Your task to perform on an android device: toggle javascript in the chrome app Image 0: 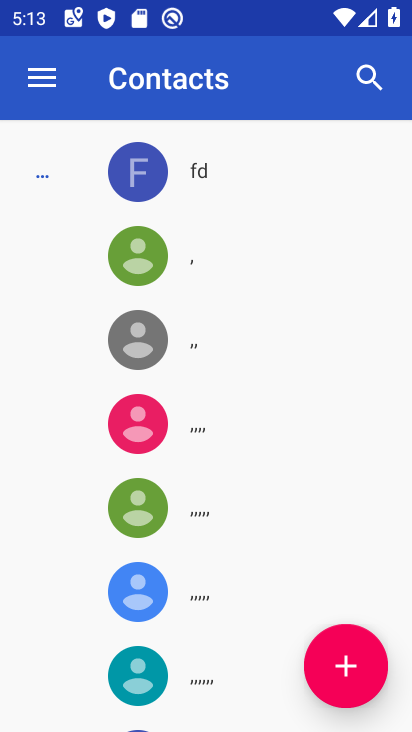
Step 0: press home button
Your task to perform on an android device: toggle javascript in the chrome app Image 1: 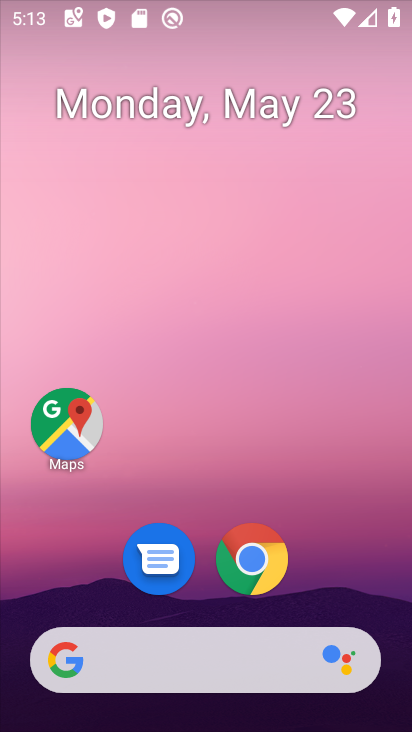
Step 1: drag from (281, 641) to (233, 22)
Your task to perform on an android device: toggle javascript in the chrome app Image 2: 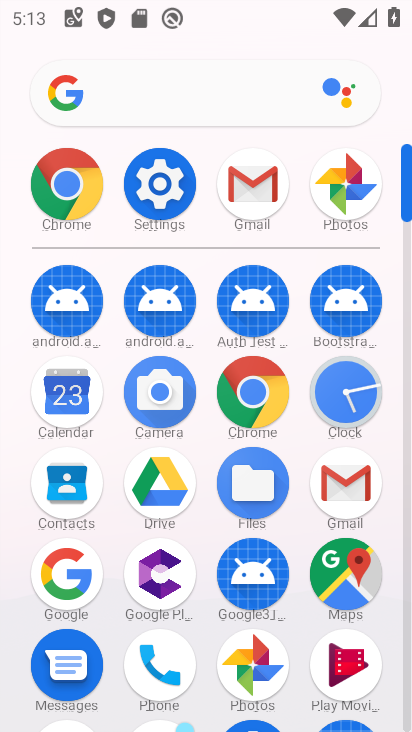
Step 2: click (216, 374)
Your task to perform on an android device: toggle javascript in the chrome app Image 3: 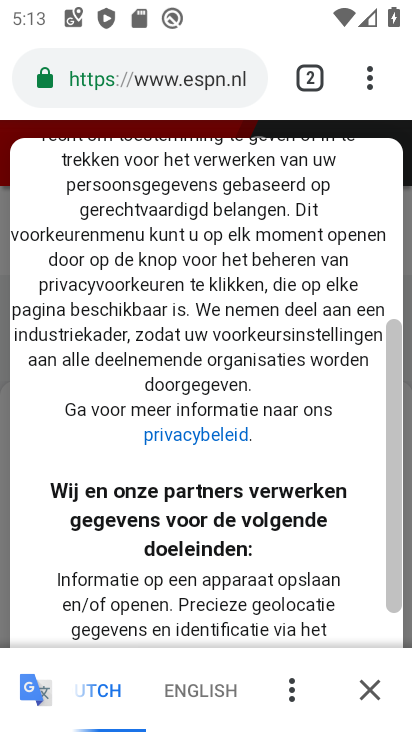
Step 3: drag from (373, 72) to (177, 619)
Your task to perform on an android device: toggle javascript in the chrome app Image 4: 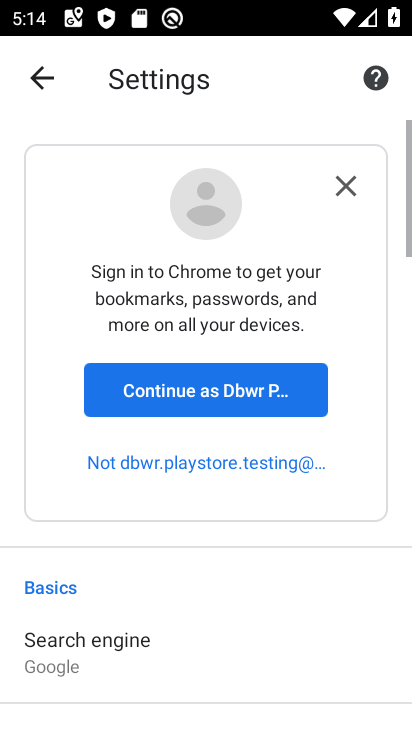
Step 4: drag from (177, 619) to (165, 25)
Your task to perform on an android device: toggle javascript in the chrome app Image 5: 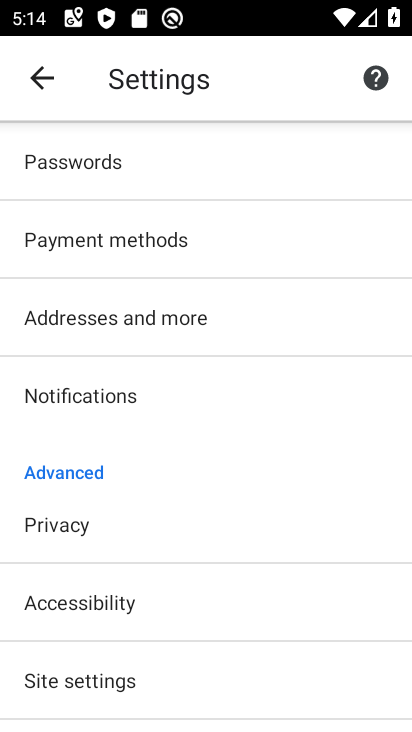
Step 5: click (121, 663)
Your task to perform on an android device: toggle javascript in the chrome app Image 6: 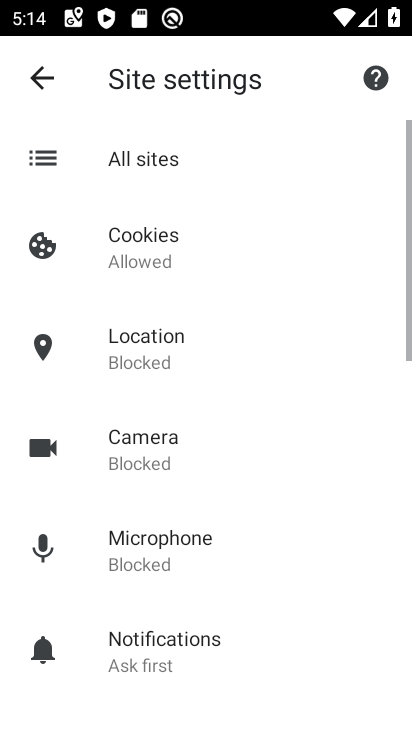
Step 6: drag from (121, 663) to (153, 108)
Your task to perform on an android device: toggle javascript in the chrome app Image 7: 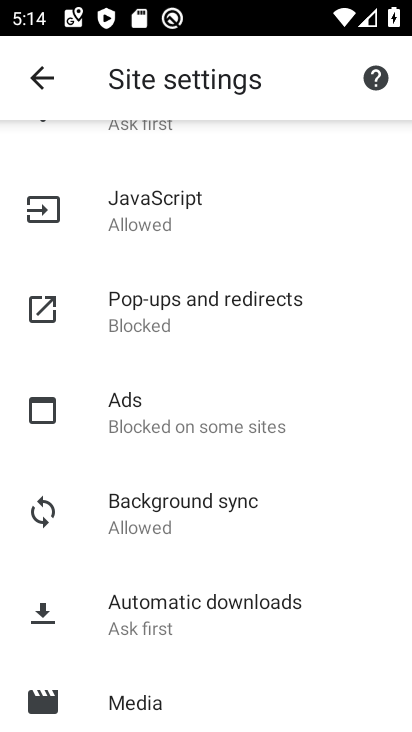
Step 7: click (186, 221)
Your task to perform on an android device: toggle javascript in the chrome app Image 8: 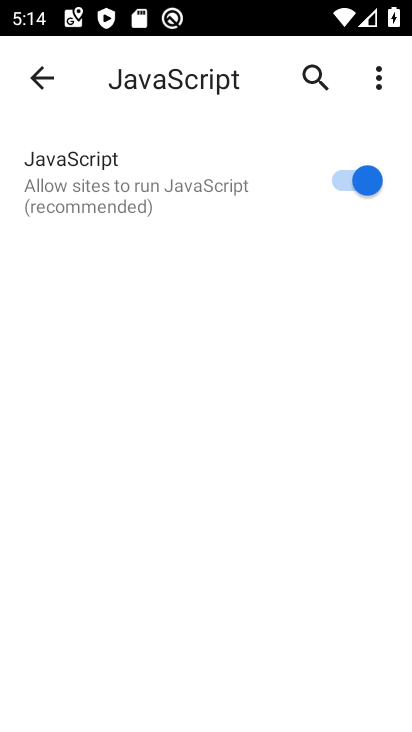
Step 8: click (346, 175)
Your task to perform on an android device: toggle javascript in the chrome app Image 9: 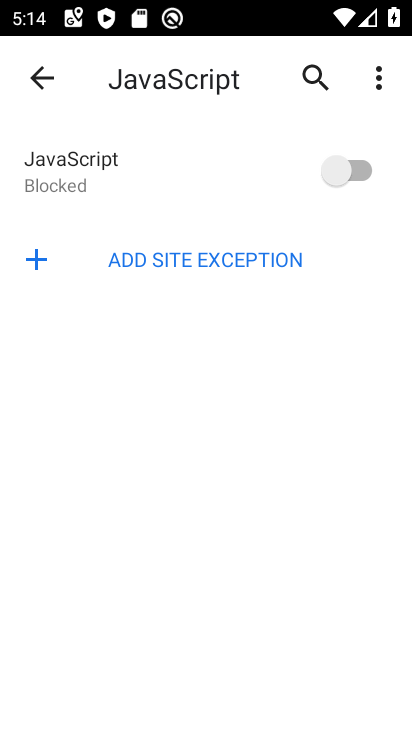
Step 9: task complete